Your task to perform on an android device: Search for pizza restaurants on Maps Image 0: 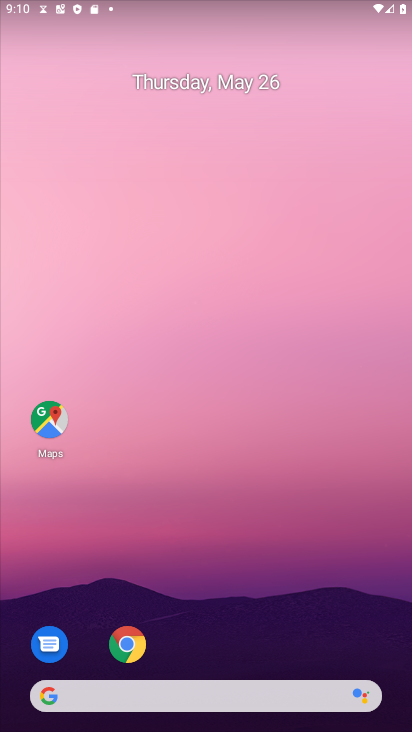
Step 0: click (41, 425)
Your task to perform on an android device: Search for pizza restaurants on Maps Image 1: 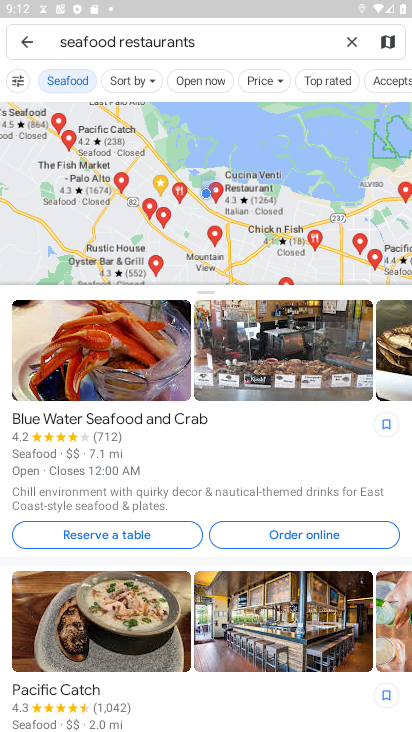
Step 1: click (353, 40)
Your task to perform on an android device: Search for pizza restaurants on Maps Image 2: 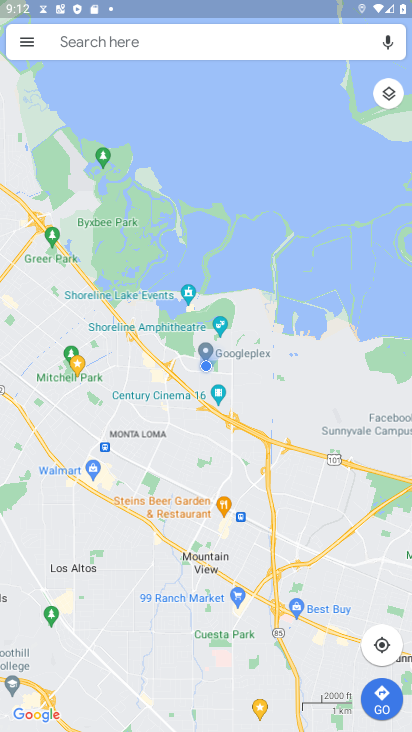
Step 2: click (163, 55)
Your task to perform on an android device: Search for pizza restaurants on Maps Image 3: 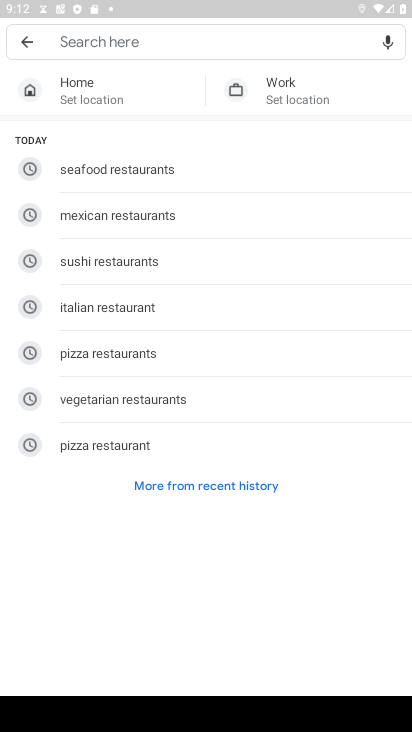
Step 3: click (97, 348)
Your task to perform on an android device: Search for pizza restaurants on Maps Image 4: 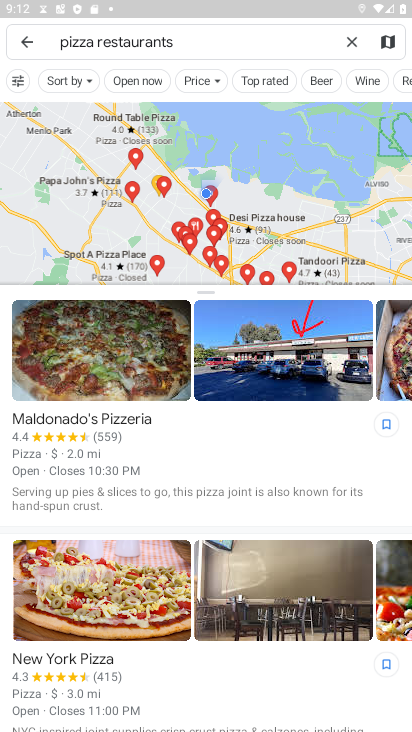
Step 4: task complete